Your task to perform on an android device: Add "usb-a" to the cart on costco.com Image 0: 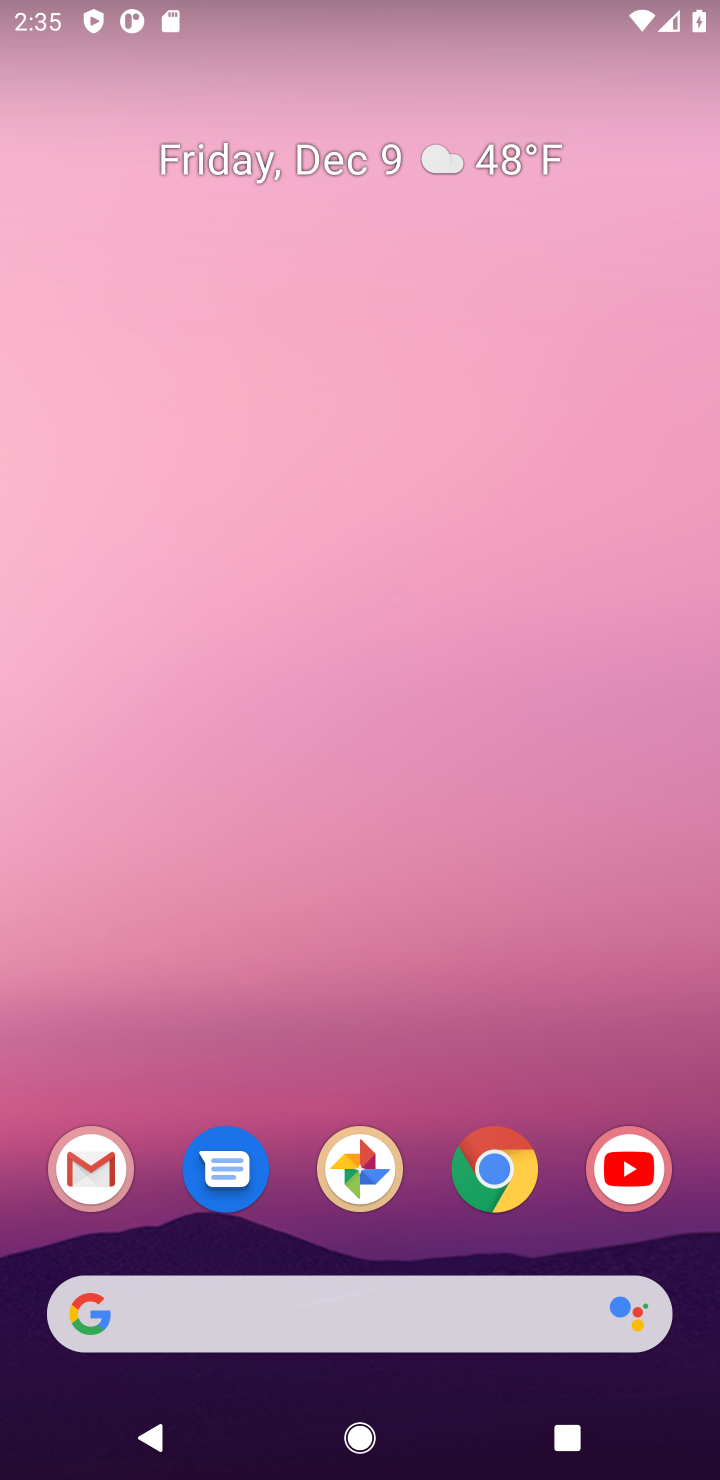
Step 0: click (508, 1153)
Your task to perform on an android device: Add "usb-a" to the cart on costco.com Image 1: 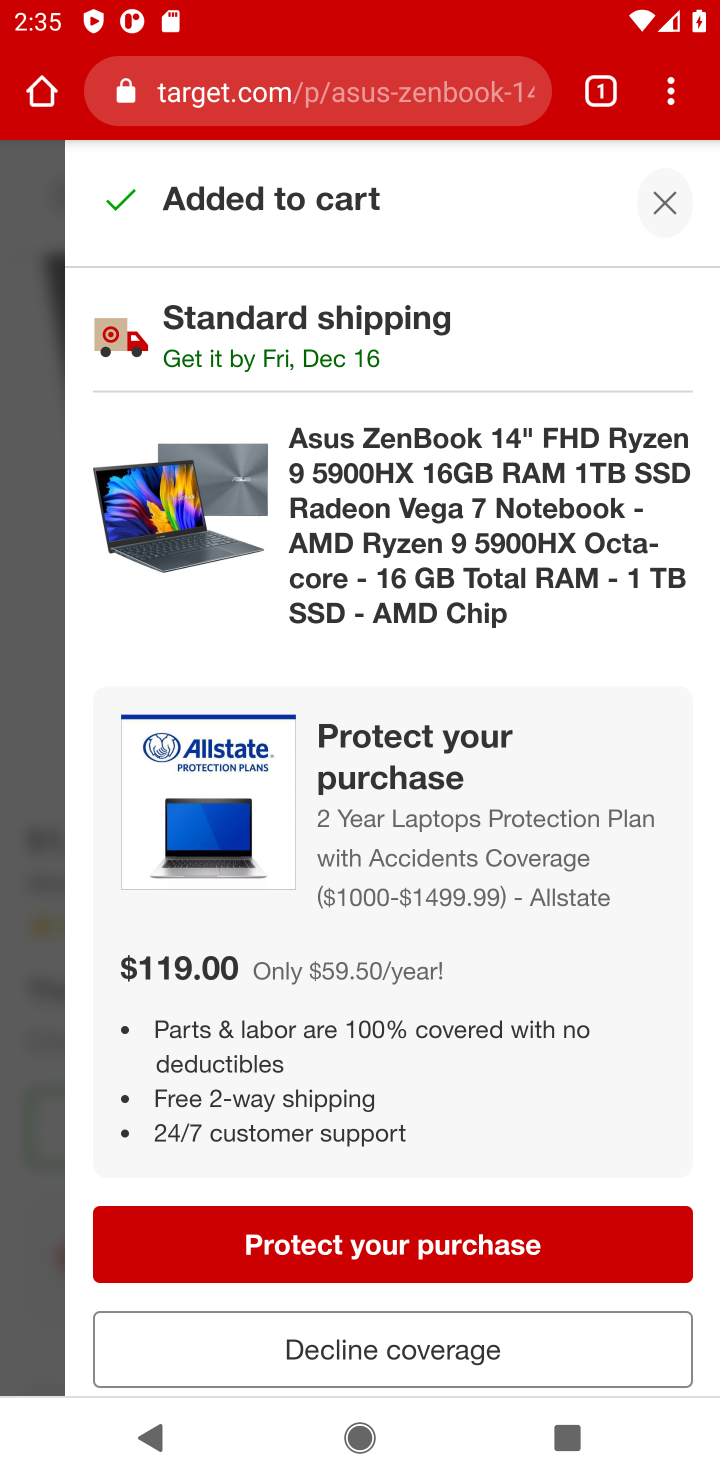
Step 1: click (418, 104)
Your task to perform on an android device: Add "usb-a" to the cart on costco.com Image 2: 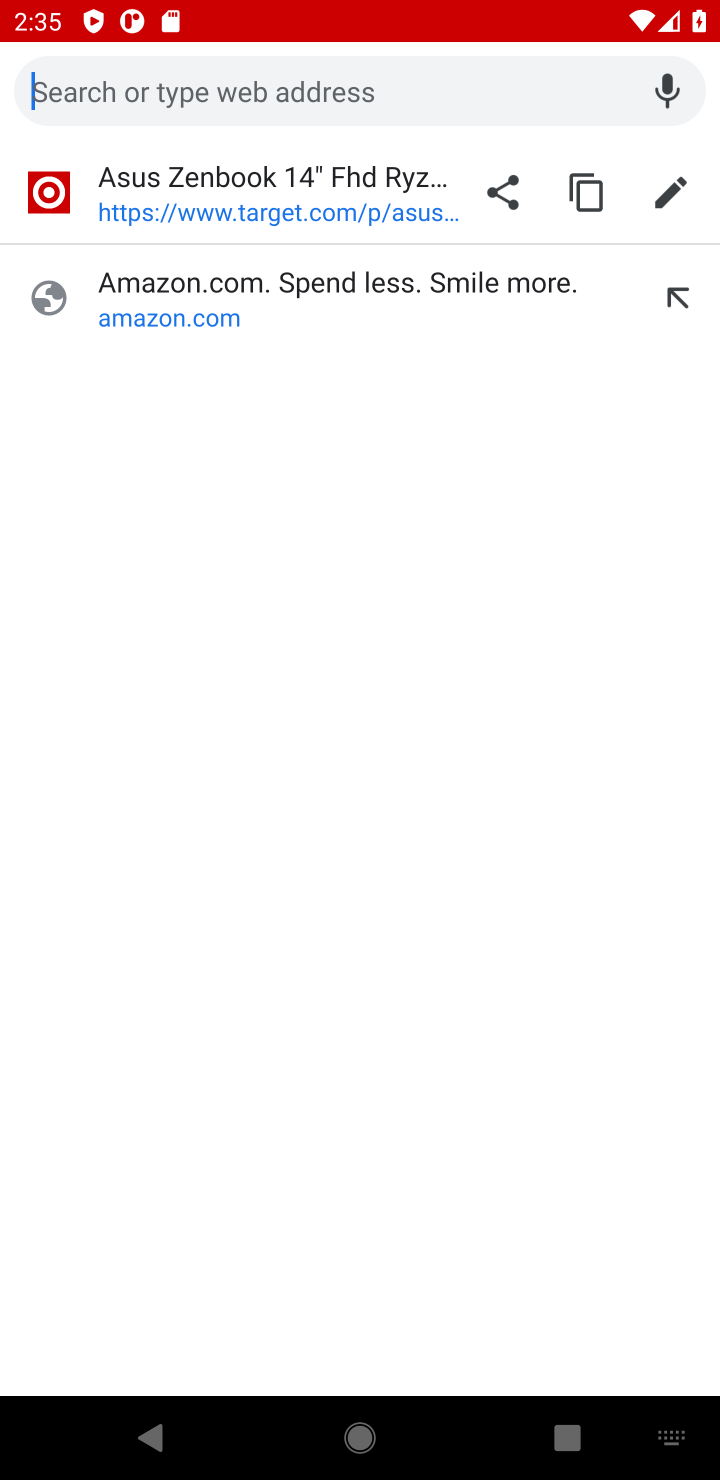
Step 2: press enter
Your task to perform on an android device: Add "usb-a" to the cart on costco.com Image 3: 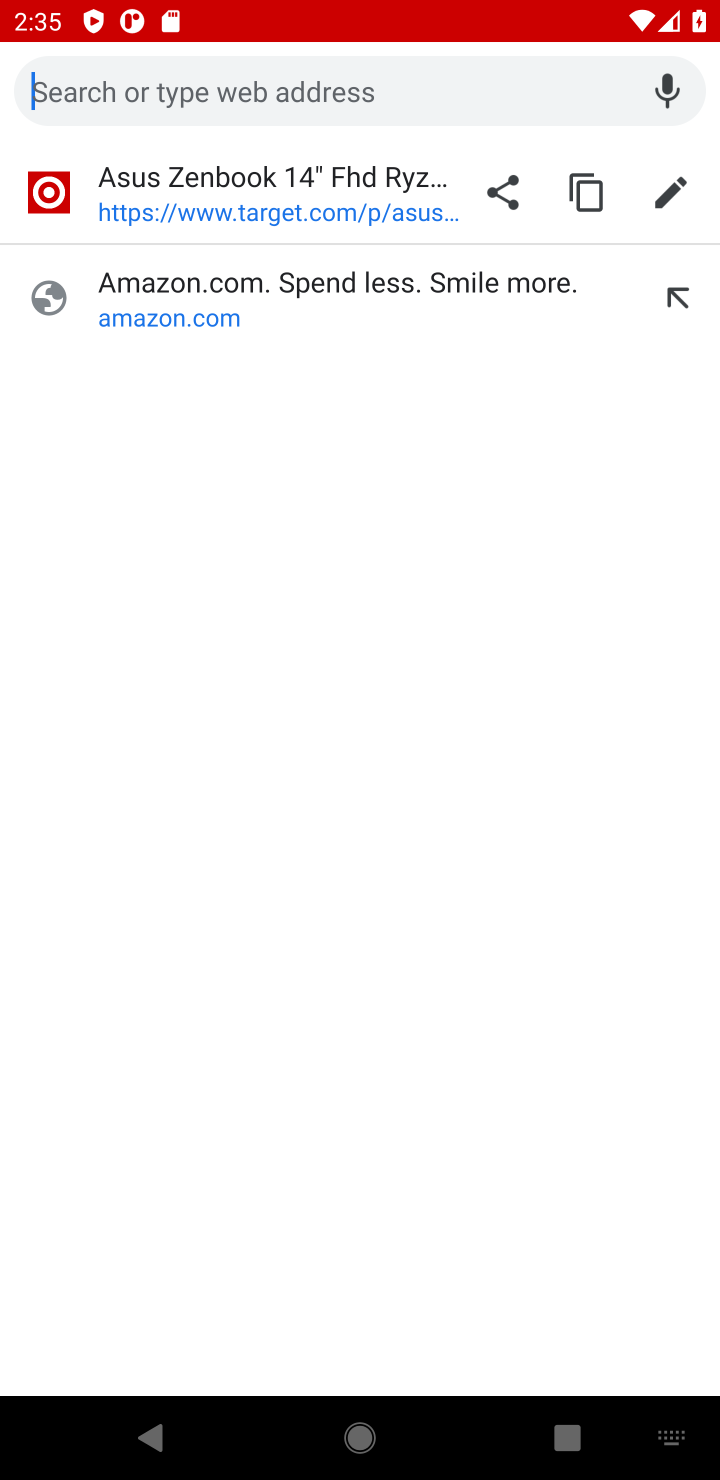
Step 3: type "costco.com"
Your task to perform on an android device: Add "usb-a" to the cart on costco.com Image 4: 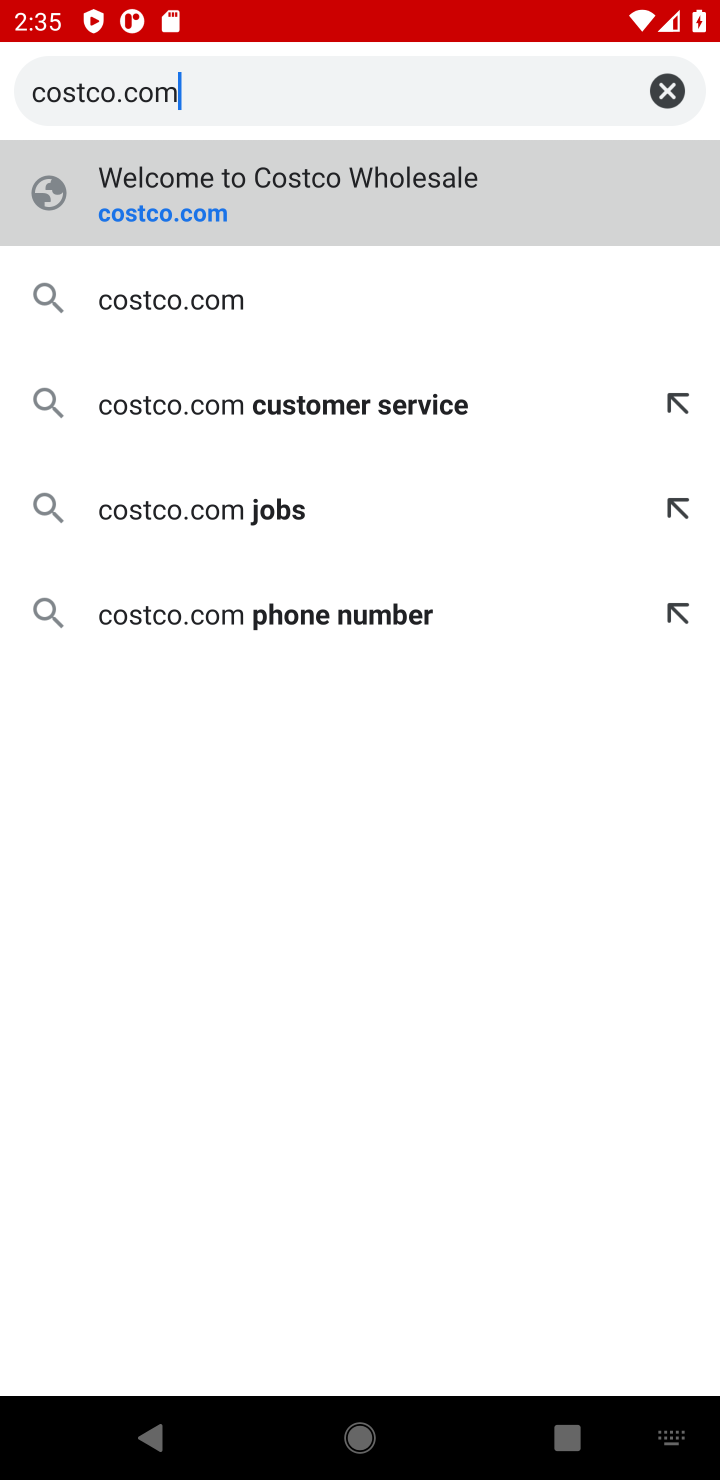
Step 4: click (136, 295)
Your task to perform on an android device: Add "usb-a" to the cart on costco.com Image 5: 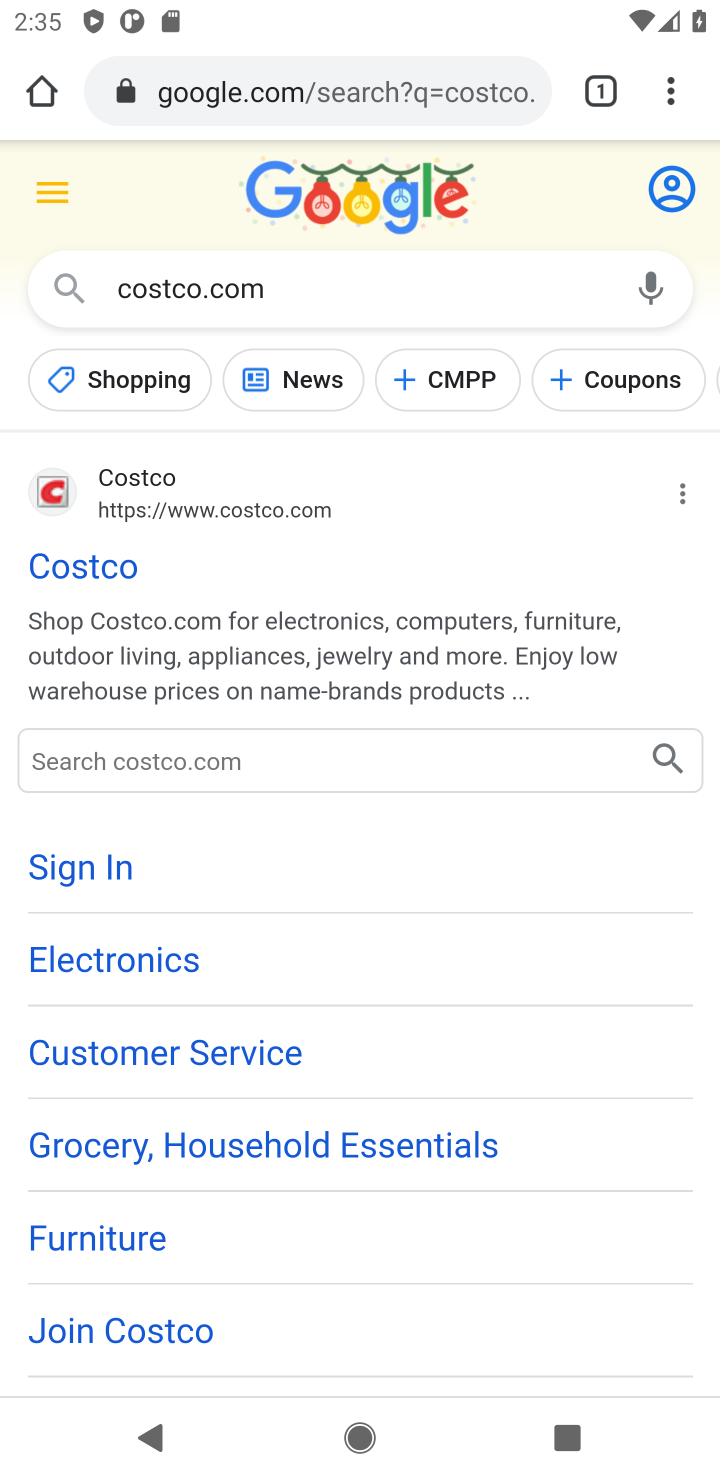
Step 5: click (204, 491)
Your task to perform on an android device: Add "usb-a" to the cart on costco.com Image 6: 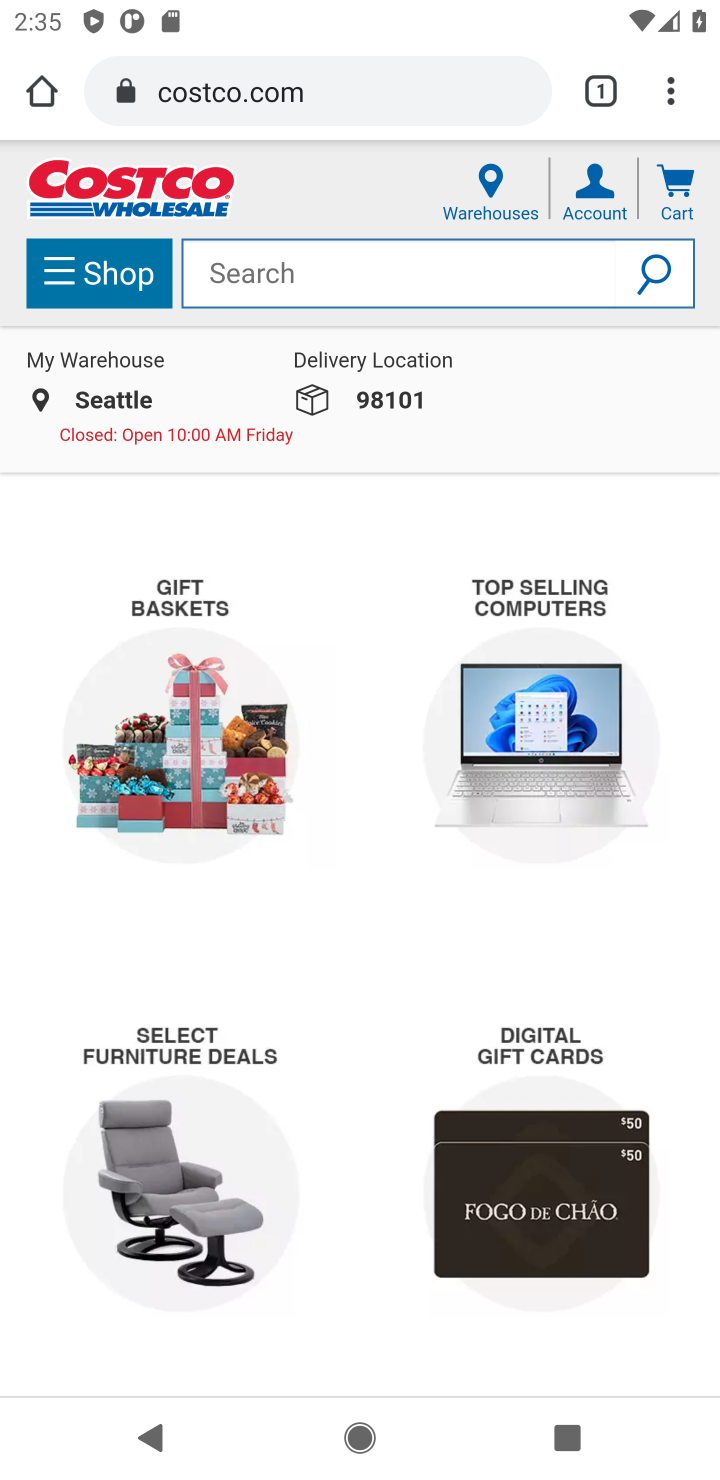
Step 6: click (585, 275)
Your task to perform on an android device: Add "usb-a" to the cart on costco.com Image 7: 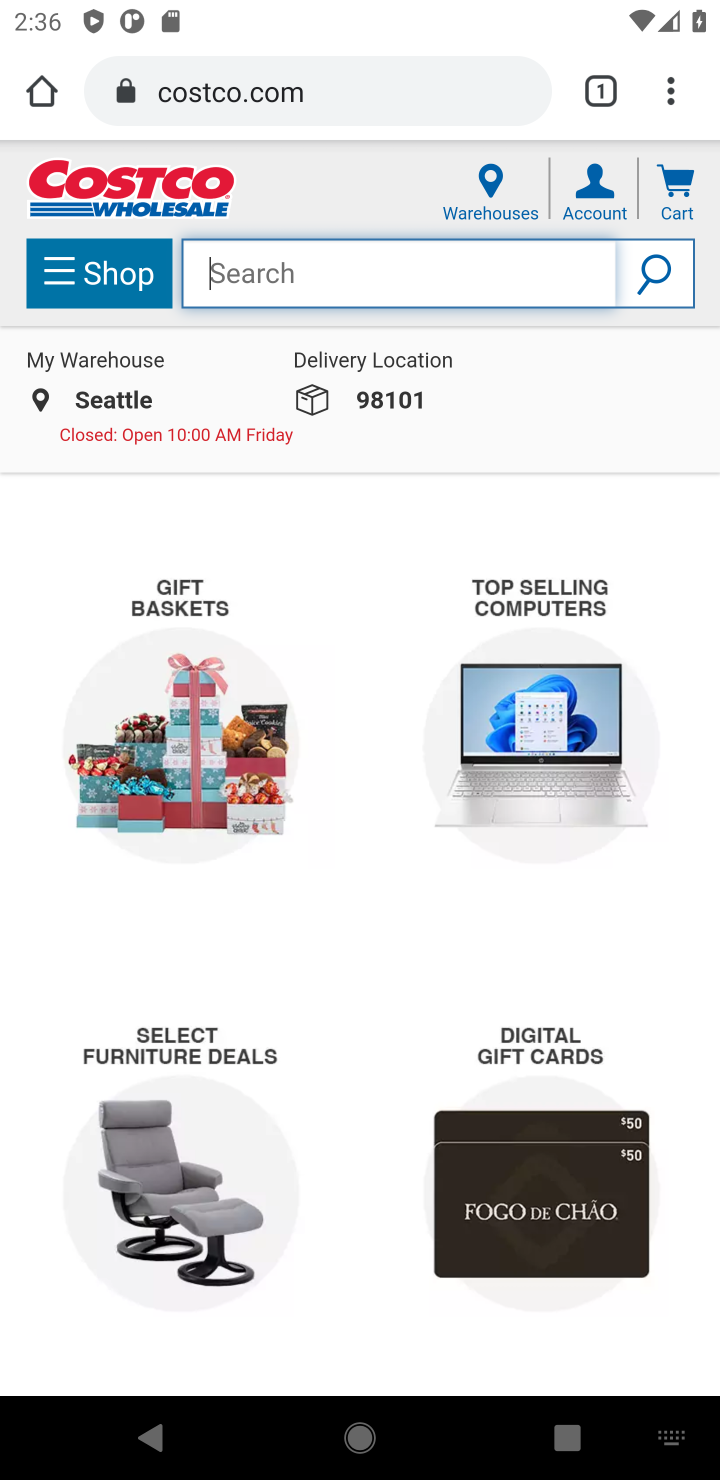
Step 7: press enter
Your task to perform on an android device: Add "usb-a" to the cart on costco.com Image 8: 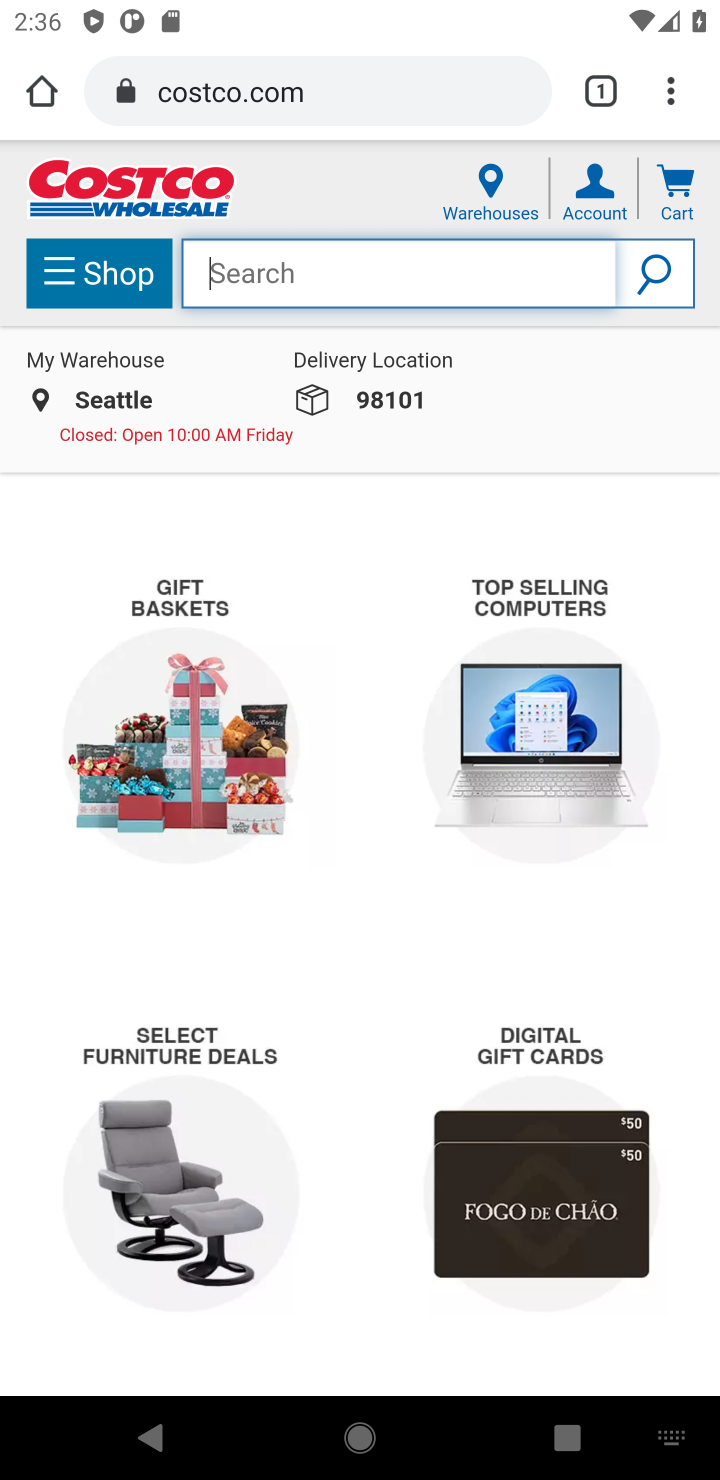
Step 8: type "usb-a"
Your task to perform on an android device: Add "usb-a" to the cart on costco.com Image 9: 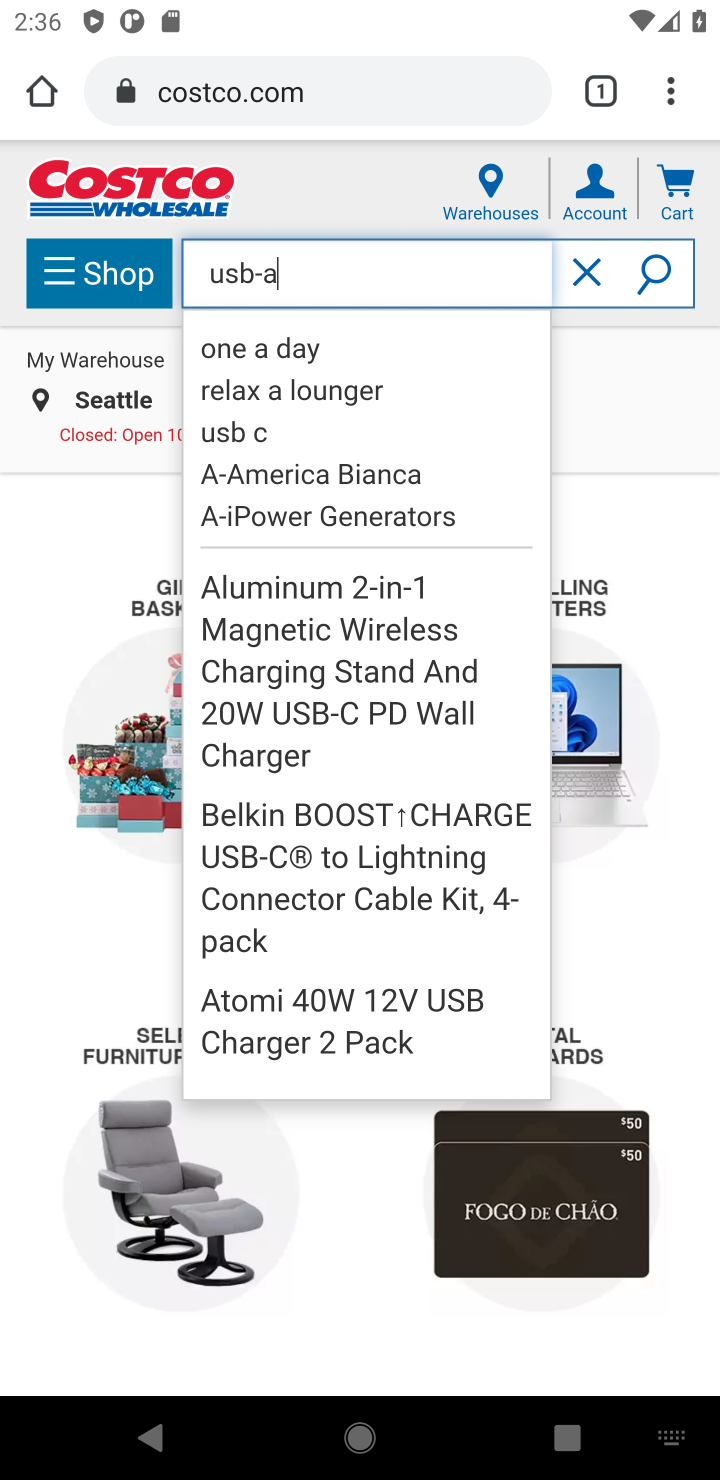
Step 9: click (660, 272)
Your task to perform on an android device: Add "usb-a" to the cart on costco.com Image 10: 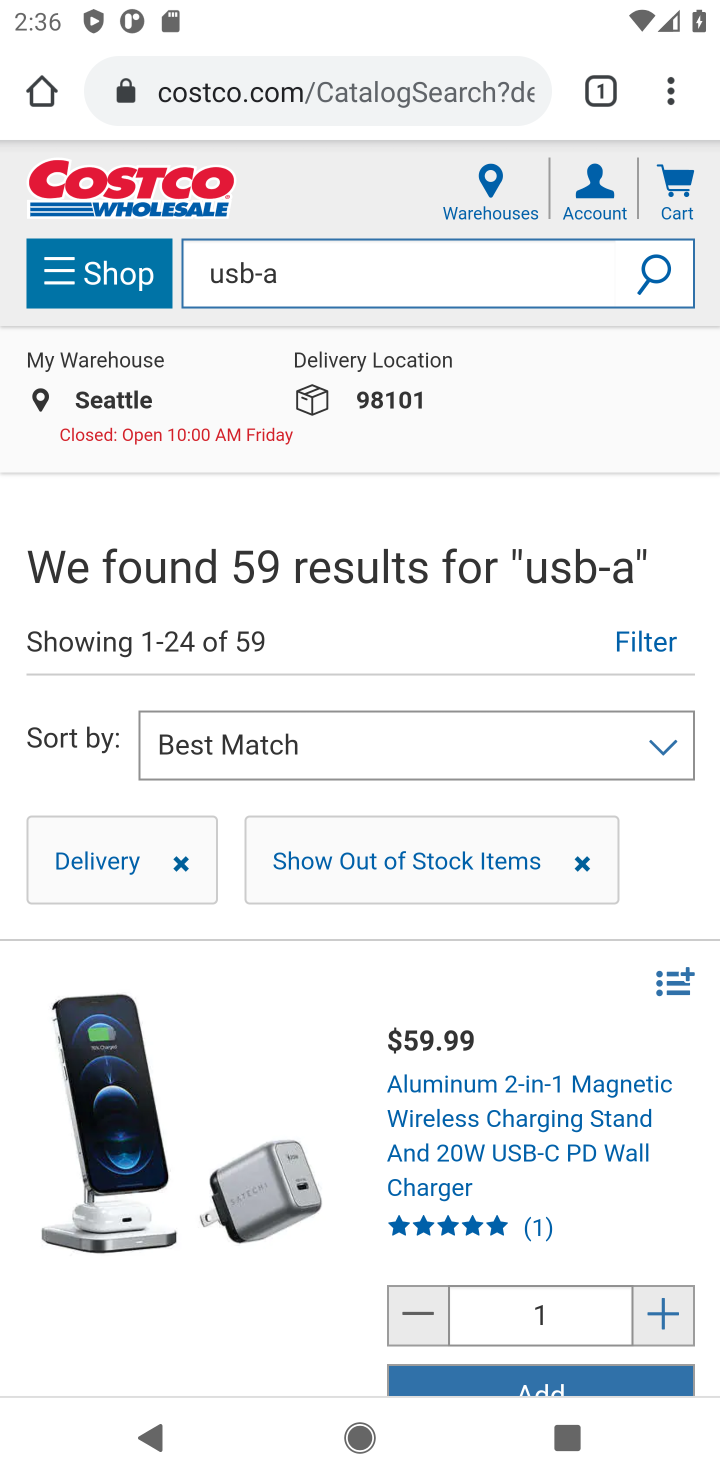
Step 10: task complete